Your task to perform on an android device: Go to calendar. Show me events next week Image 0: 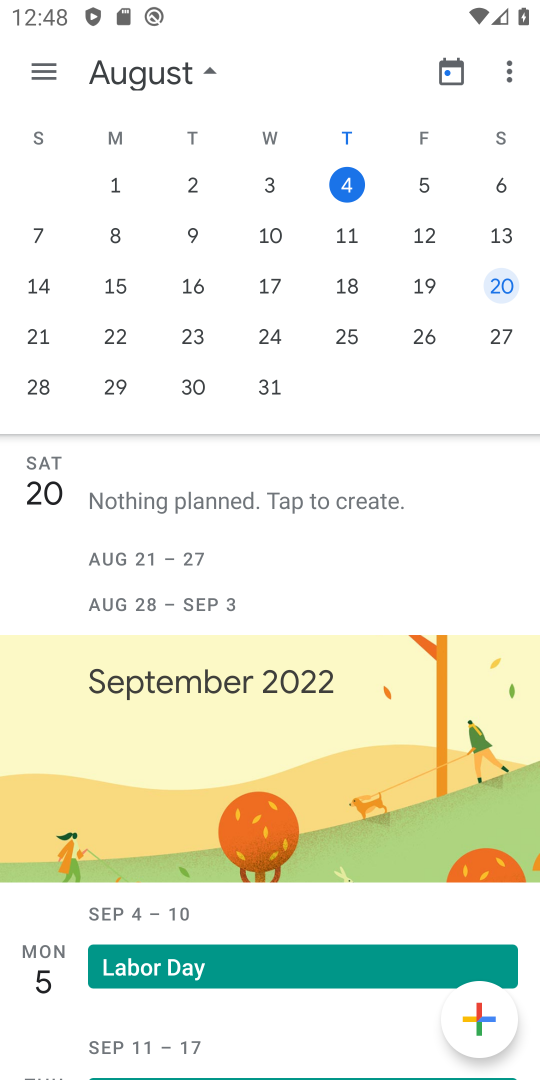
Step 0: click (31, 237)
Your task to perform on an android device: Go to calendar. Show me events next week Image 1: 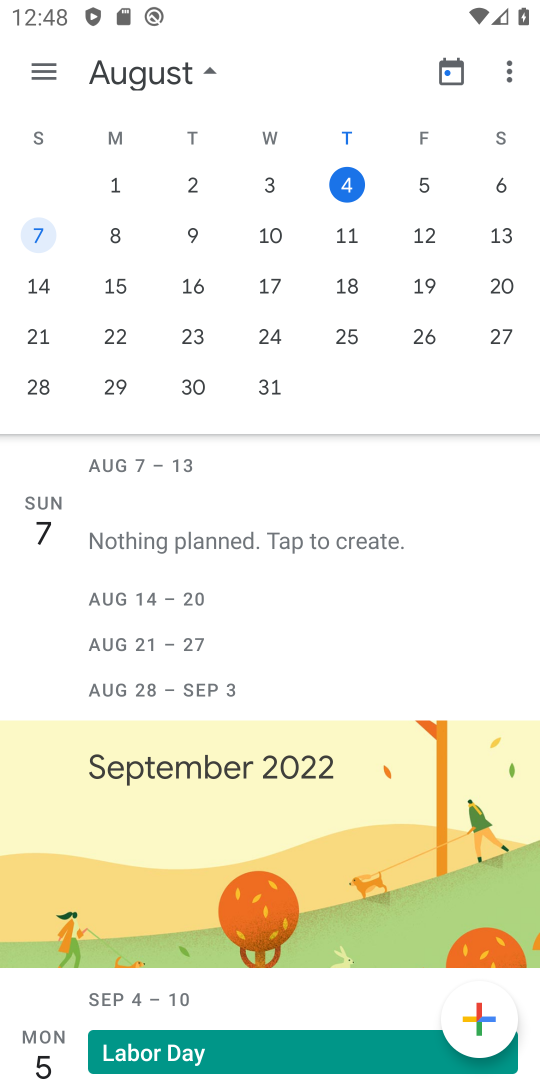
Step 1: click (72, 248)
Your task to perform on an android device: Go to calendar. Show me events next week Image 2: 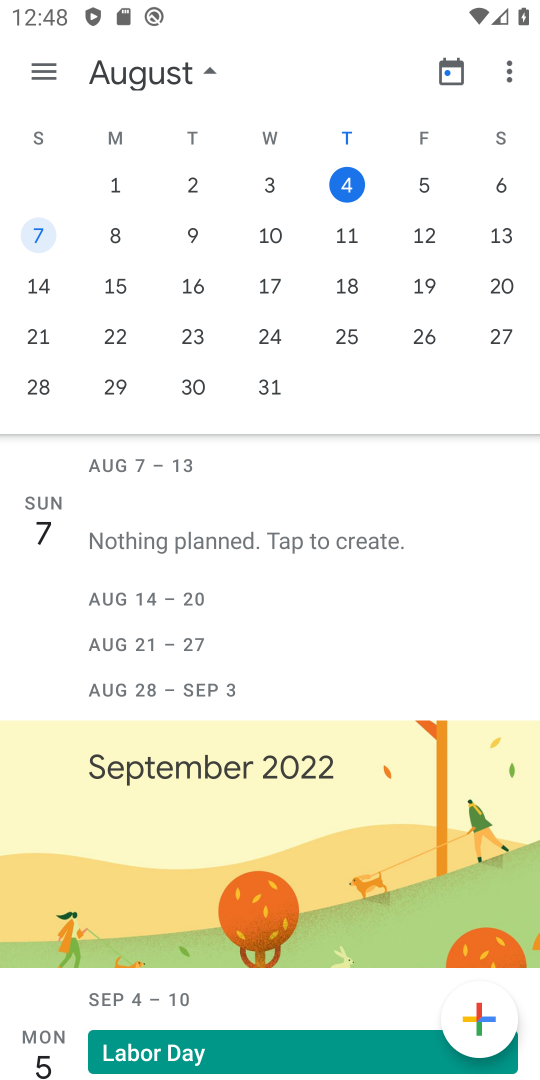
Step 2: task complete